Your task to perform on an android device: Find coffee shops on Maps Image 0: 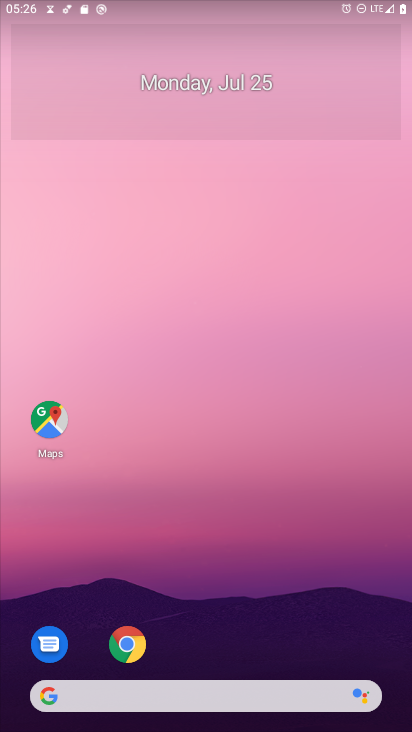
Step 0: press home button
Your task to perform on an android device: Find coffee shops on Maps Image 1: 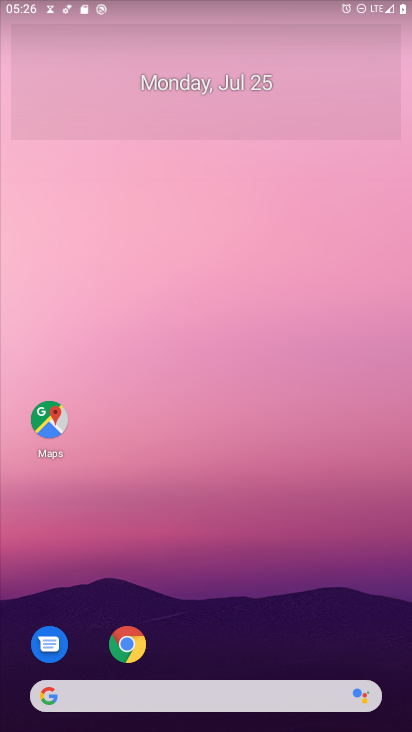
Step 1: click (53, 422)
Your task to perform on an android device: Find coffee shops on Maps Image 2: 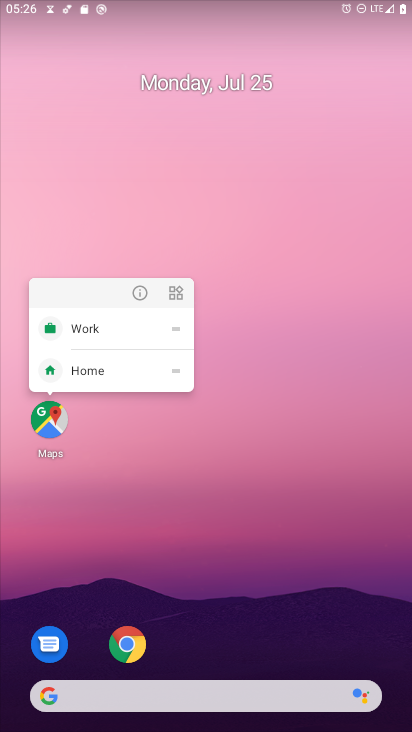
Step 2: click (61, 417)
Your task to perform on an android device: Find coffee shops on Maps Image 3: 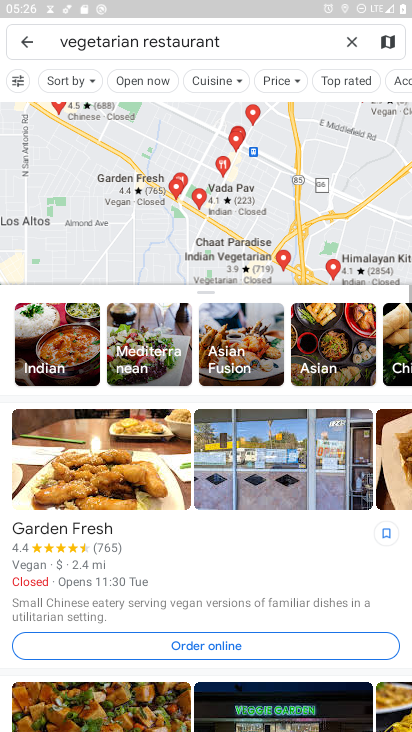
Step 3: click (346, 40)
Your task to perform on an android device: Find coffee shops on Maps Image 4: 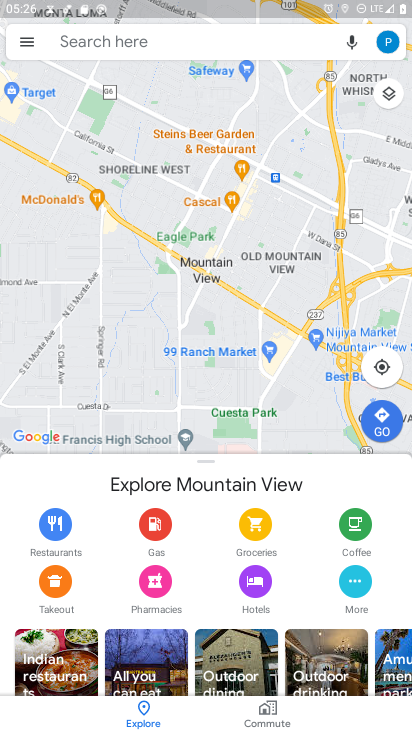
Step 4: type "coffee shops"
Your task to perform on an android device: Find coffee shops on Maps Image 5: 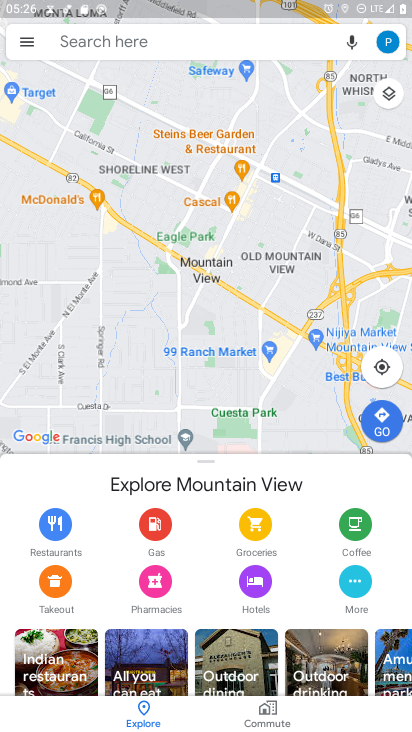
Step 5: click (93, 40)
Your task to perform on an android device: Find coffee shops on Maps Image 6: 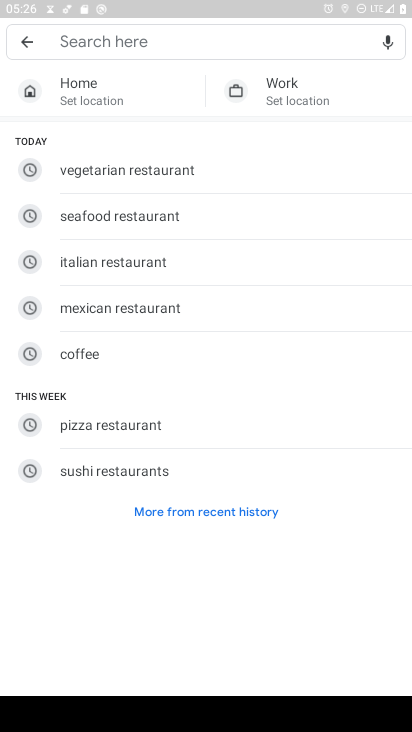
Step 6: click (87, 38)
Your task to perform on an android device: Find coffee shops on Maps Image 7: 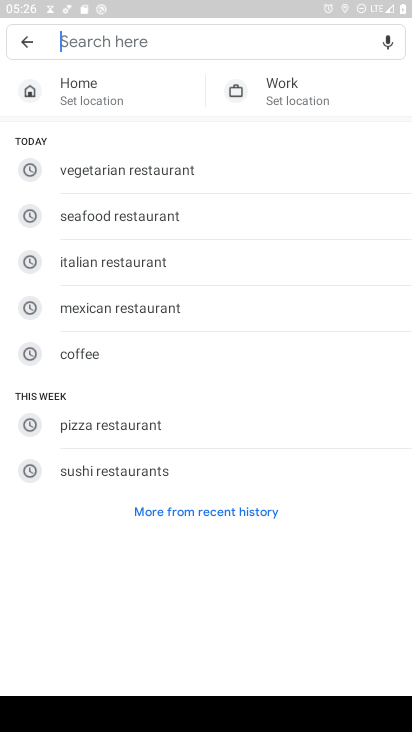
Step 7: type "coffee shops"
Your task to perform on an android device: Find coffee shops on Maps Image 8: 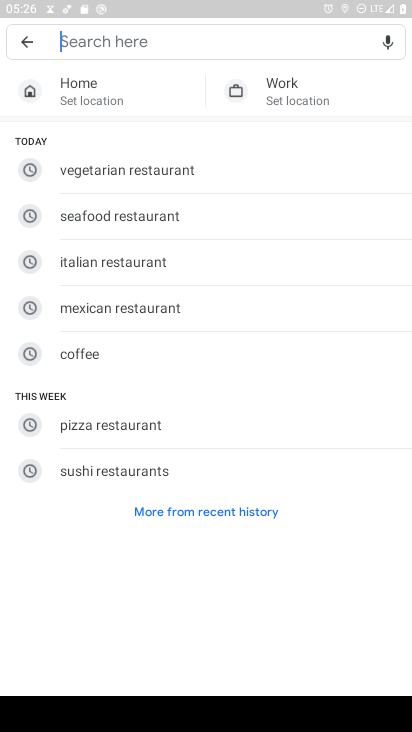
Step 8: click (120, 39)
Your task to perform on an android device: Find coffee shops on Maps Image 9: 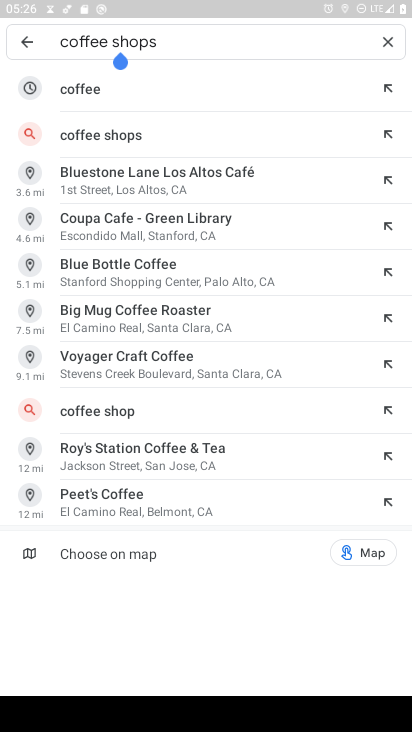
Step 9: press enter
Your task to perform on an android device: Find coffee shops on Maps Image 10: 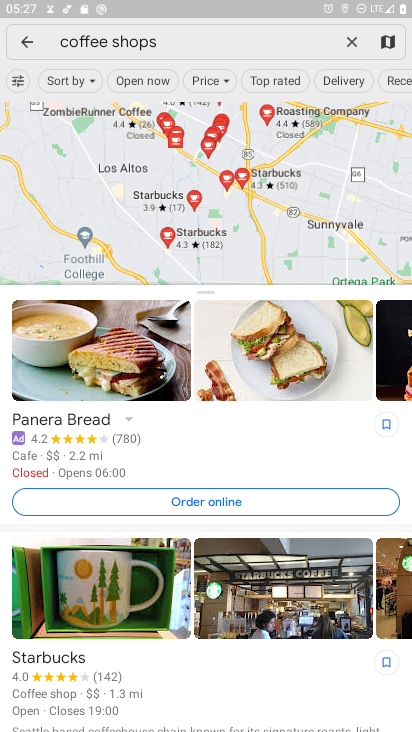
Step 10: task complete